Your task to perform on an android device: Open Google Chrome and click the shortcut for Amazon.com Image 0: 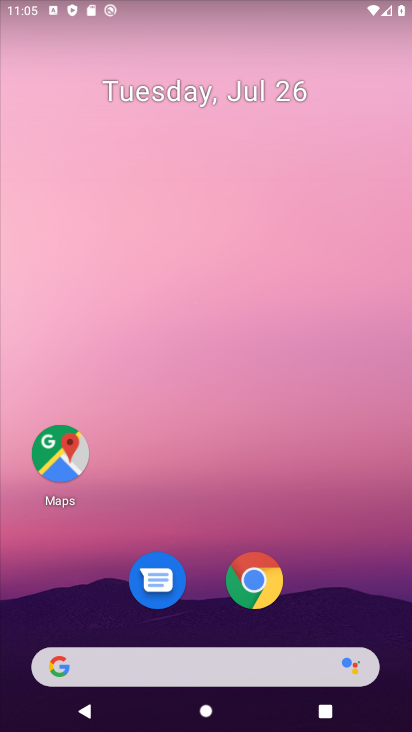
Step 0: click (279, 574)
Your task to perform on an android device: Open Google Chrome and click the shortcut for Amazon.com Image 1: 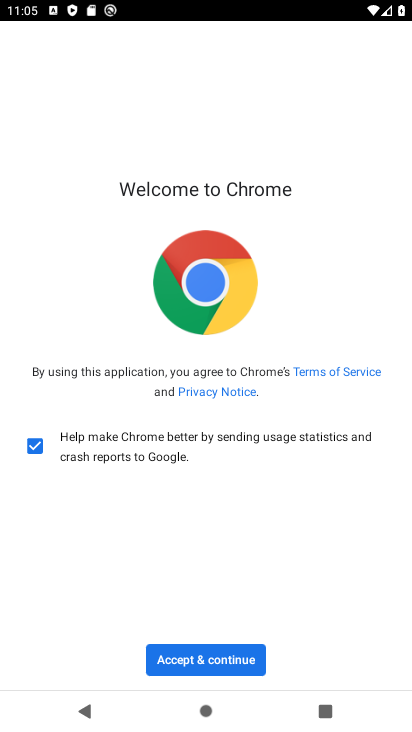
Step 1: click (217, 652)
Your task to perform on an android device: Open Google Chrome and click the shortcut for Amazon.com Image 2: 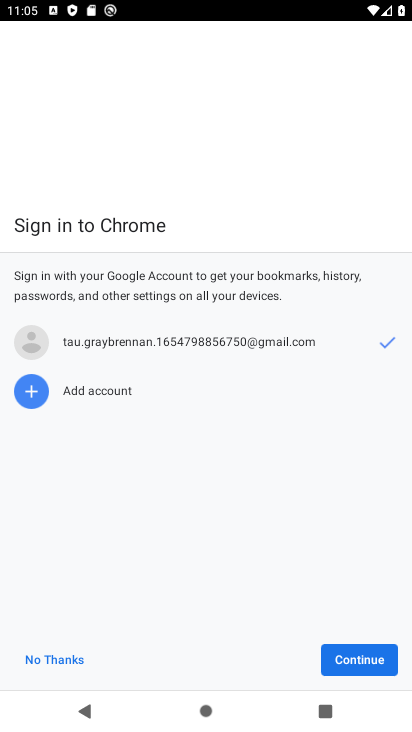
Step 2: click (340, 655)
Your task to perform on an android device: Open Google Chrome and click the shortcut for Amazon.com Image 3: 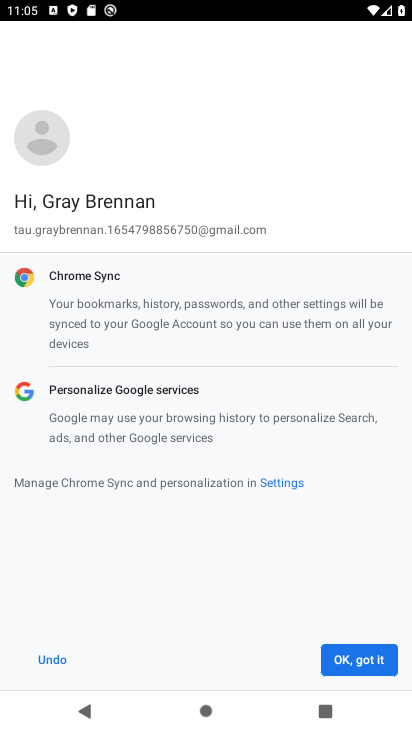
Step 3: click (340, 655)
Your task to perform on an android device: Open Google Chrome and click the shortcut for Amazon.com Image 4: 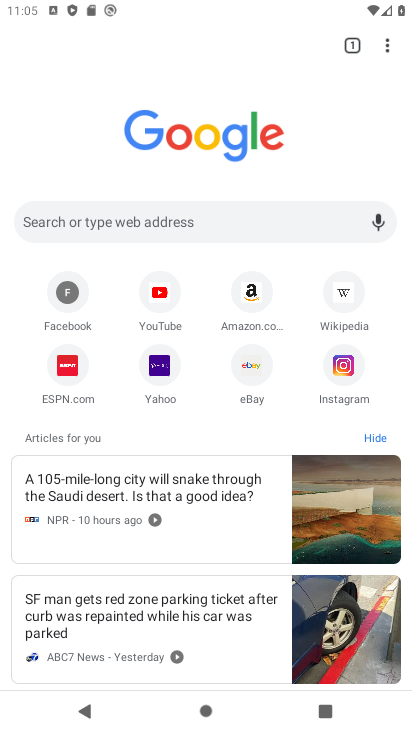
Step 4: click (247, 299)
Your task to perform on an android device: Open Google Chrome and click the shortcut for Amazon.com Image 5: 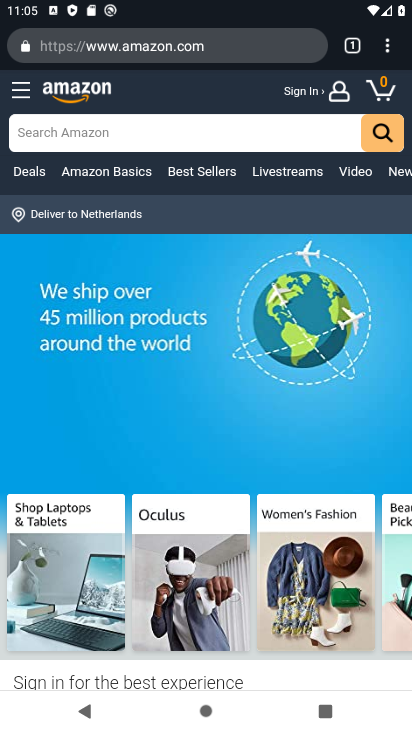
Step 5: task complete